Your task to perform on an android device: toggle javascript in the chrome app Image 0: 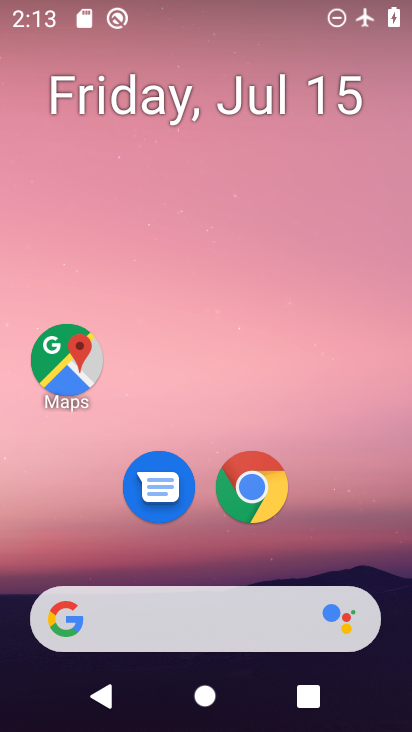
Step 0: drag from (189, 645) to (261, 139)
Your task to perform on an android device: toggle javascript in the chrome app Image 1: 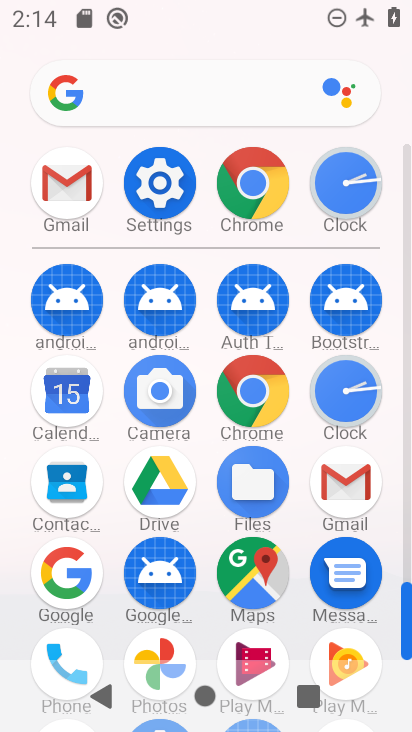
Step 1: click (251, 212)
Your task to perform on an android device: toggle javascript in the chrome app Image 2: 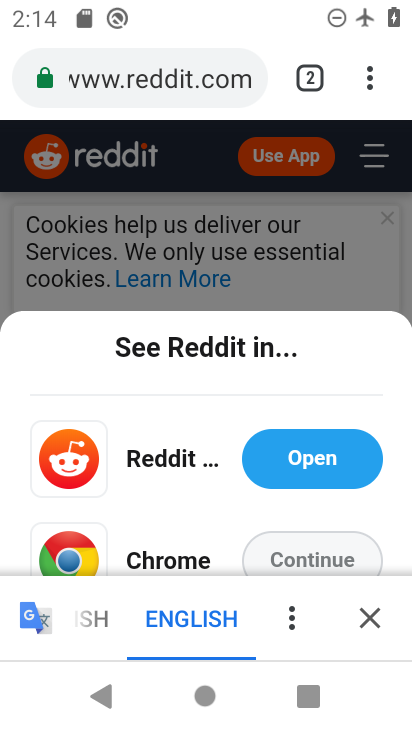
Step 2: click (375, 89)
Your task to perform on an android device: toggle javascript in the chrome app Image 3: 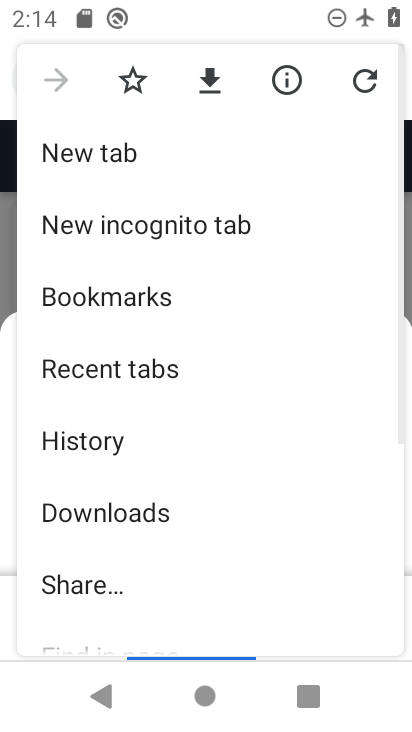
Step 3: drag from (122, 518) to (194, 124)
Your task to perform on an android device: toggle javascript in the chrome app Image 4: 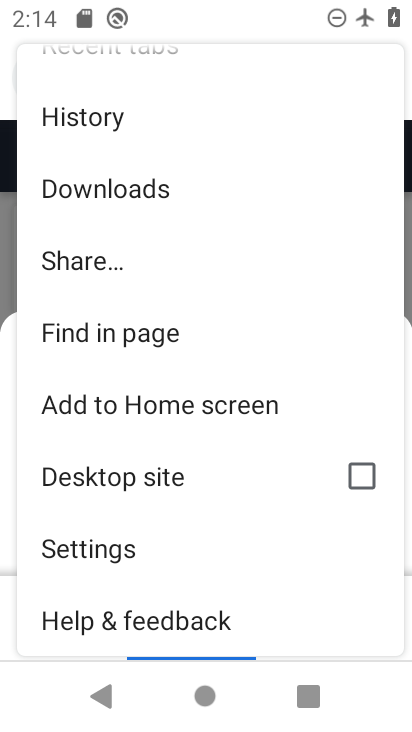
Step 4: click (104, 539)
Your task to perform on an android device: toggle javascript in the chrome app Image 5: 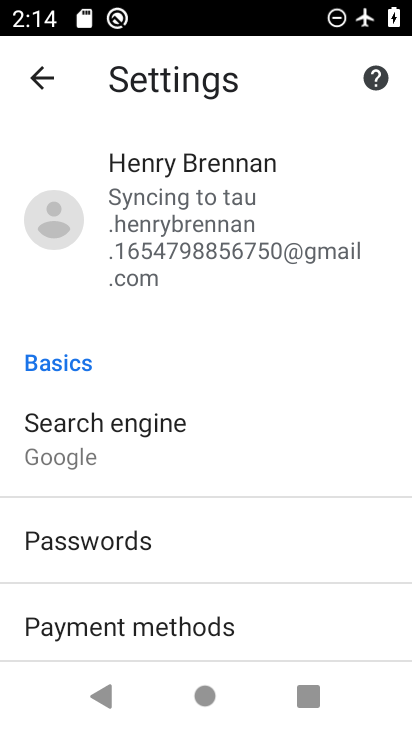
Step 5: drag from (139, 586) to (179, 280)
Your task to perform on an android device: toggle javascript in the chrome app Image 6: 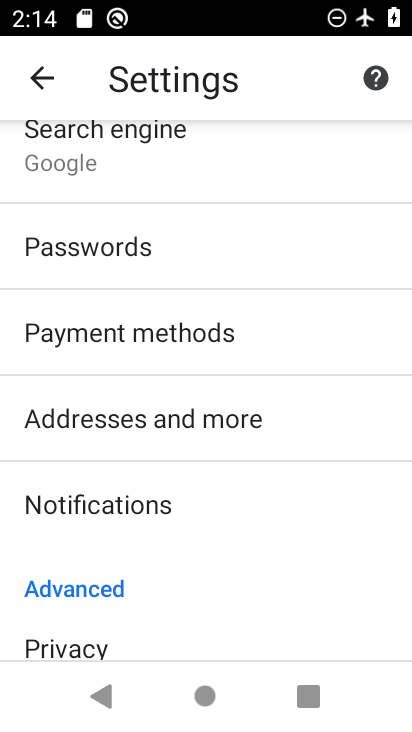
Step 6: drag from (152, 578) to (212, 272)
Your task to perform on an android device: toggle javascript in the chrome app Image 7: 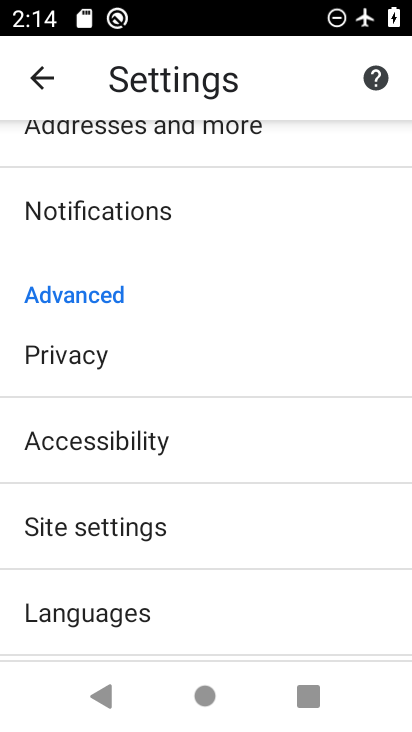
Step 7: click (134, 534)
Your task to perform on an android device: toggle javascript in the chrome app Image 8: 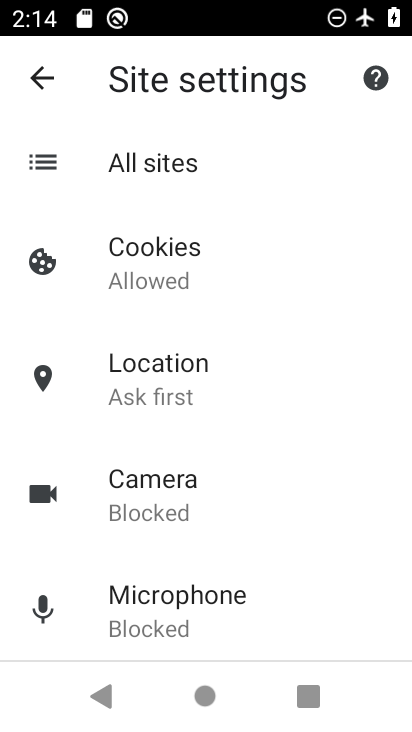
Step 8: drag from (146, 556) to (184, 329)
Your task to perform on an android device: toggle javascript in the chrome app Image 9: 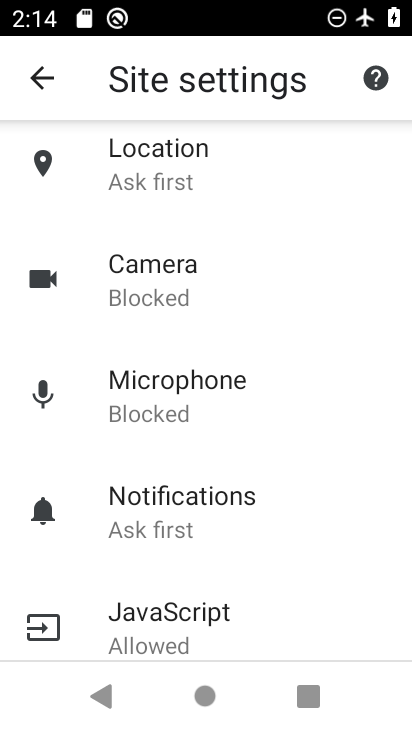
Step 9: click (170, 623)
Your task to perform on an android device: toggle javascript in the chrome app Image 10: 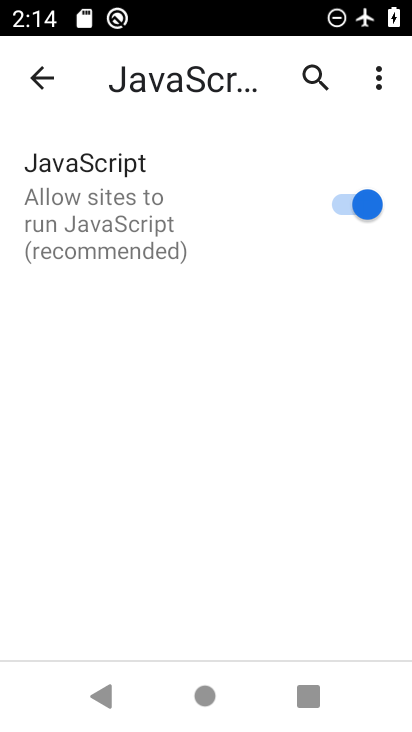
Step 10: click (357, 215)
Your task to perform on an android device: toggle javascript in the chrome app Image 11: 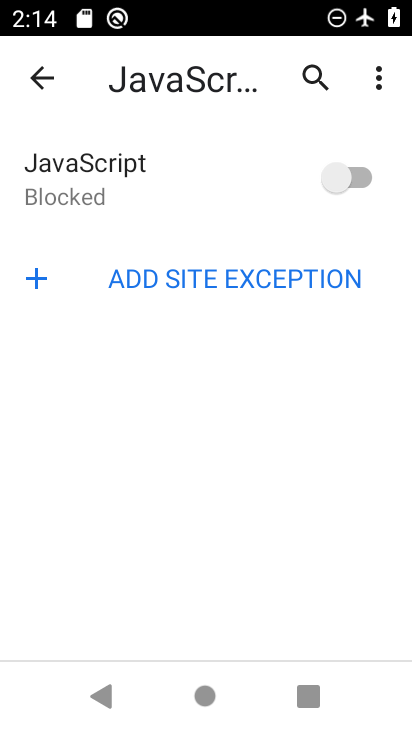
Step 11: task complete